Your task to perform on an android device: Go to Yahoo.com Image 0: 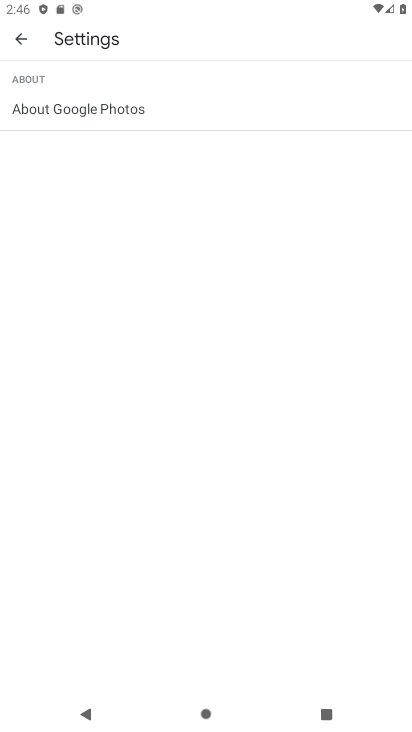
Step 0: press home button
Your task to perform on an android device: Go to Yahoo.com Image 1: 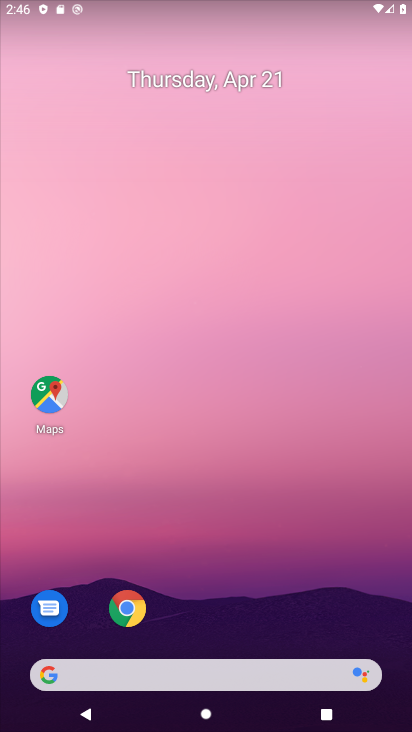
Step 1: drag from (308, 509) to (252, 100)
Your task to perform on an android device: Go to Yahoo.com Image 2: 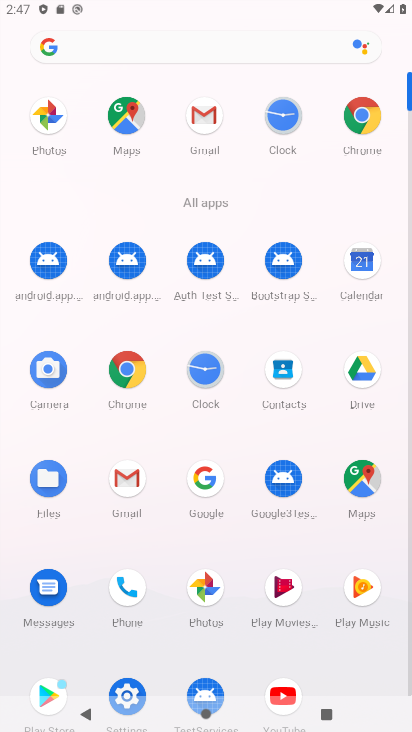
Step 2: click (363, 103)
Your task to perform on an android device: Go to Yahoo.com Image 3: 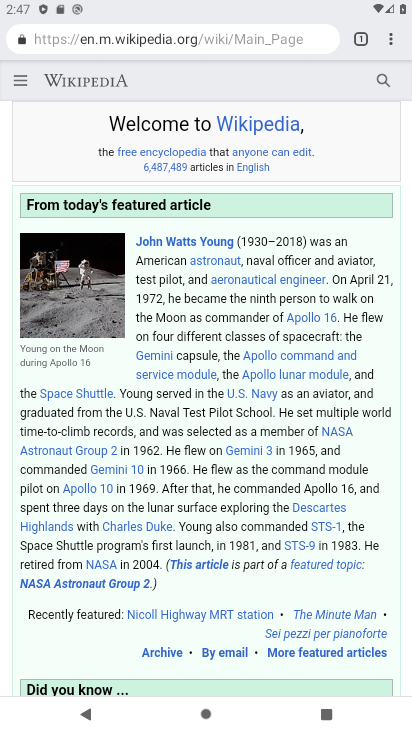
Step 3: press back button
Your task to perform on an android device: Go to Yahoo.com Image 4: 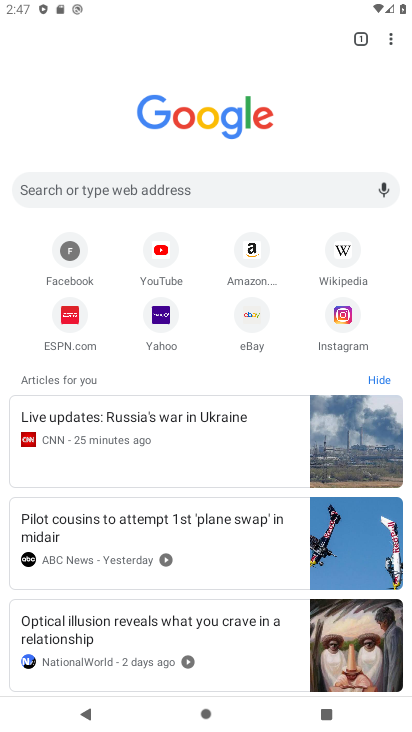
Step 4: click (156, 322)
Your task to perform on an android device: Go to Yahoo.com Image 5: 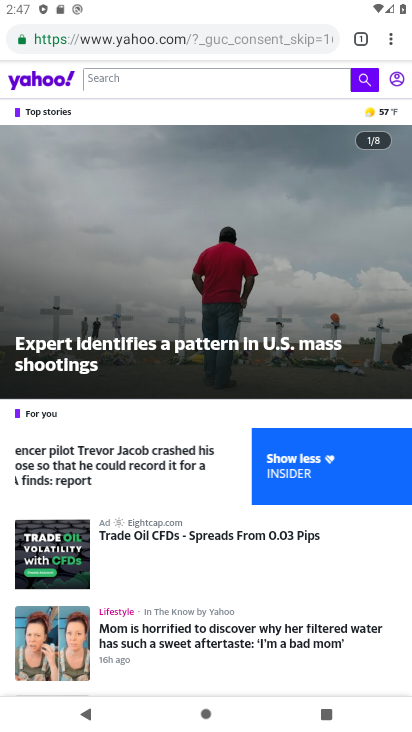
Step 5: task complete